Your task to perform on an android device: Is it going to rain today? Image 0: 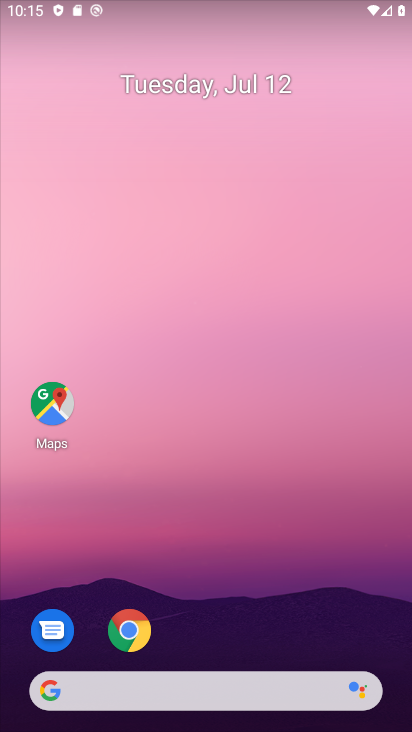
Step 0: click (223, 694)
Your task to perform on an android device: Is it going to rain today? Image 1: 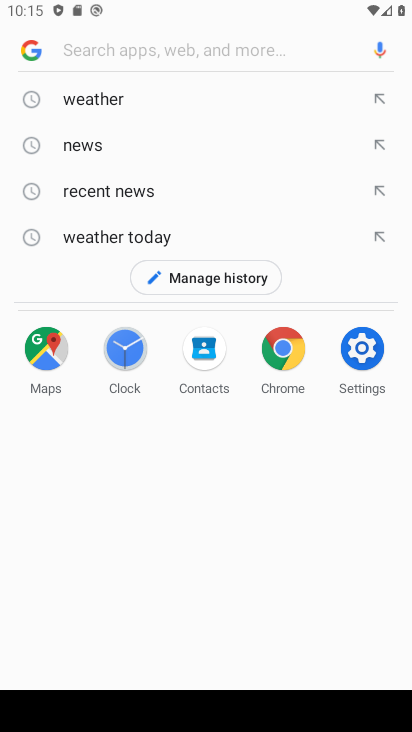
Step 1: click (117, 101)
Your task to perform on an android device: Is it going to rain today? Image 2: 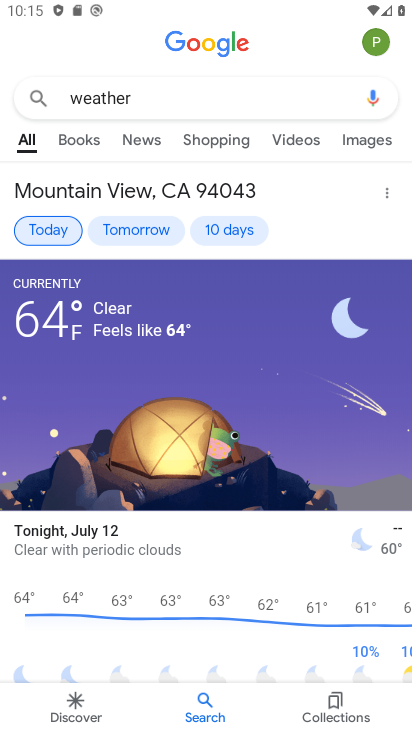
Step 2: task complete